Your task to perform on an android device: clear all cookies in the chrome app Image 0: 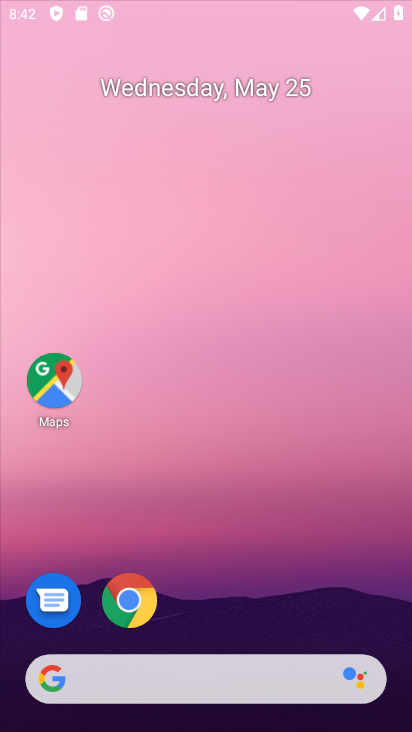
Step 0: drag from (245, 567) to (244, 60)
Your task to perform on an android device: clear all cookies in the chrome app Image 1: 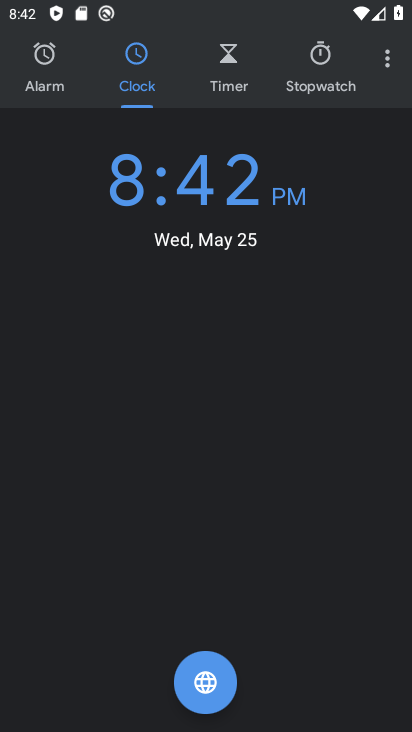
Step 1: press back button
Your task to perform on an android device: clear all cookies in the chrome app Image 2: 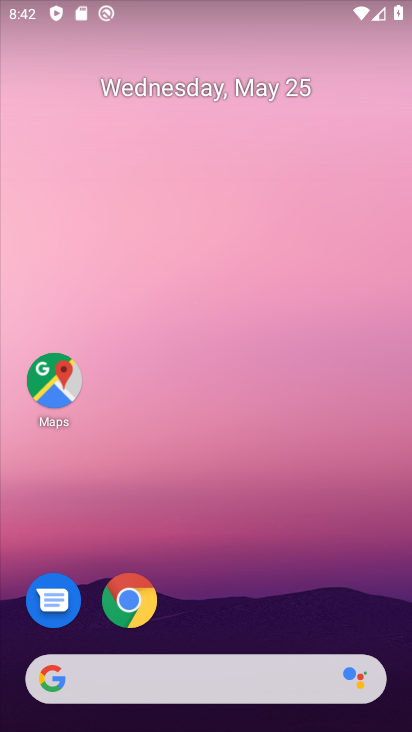
Step 2: drag from (290, 503) to (238, 27)
Your task to perform on an android device: clear all cookies in the chrome app Image 3: 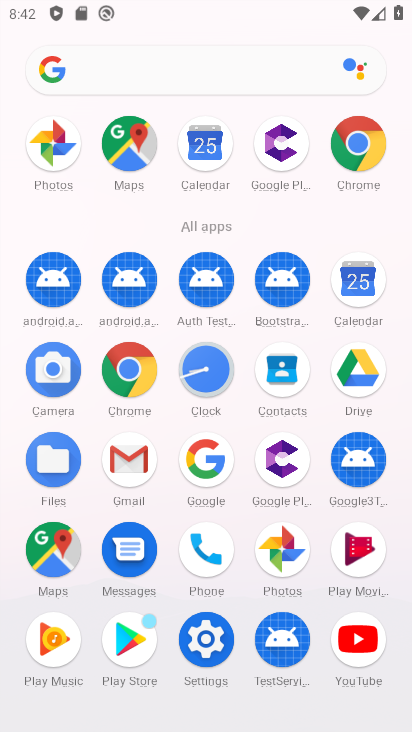
Step 3: click (354, 140)
Your task to perform on an android device: clear all cookies in the chrome app Image 4: 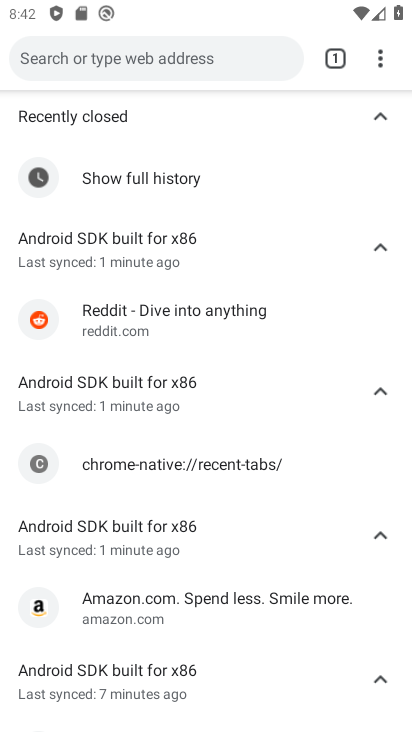
Step 4: drag from (380, 60) to (181, 558)
Your task to perform on an android device: clear all cookies in the chrome app Image 5: 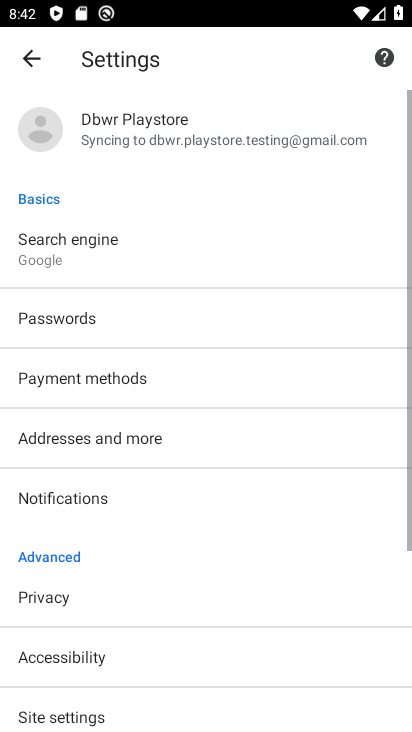
Step 5: click (70, 609)
Your task to perform on an android device: clear all cookies in the chrome app Image 6: 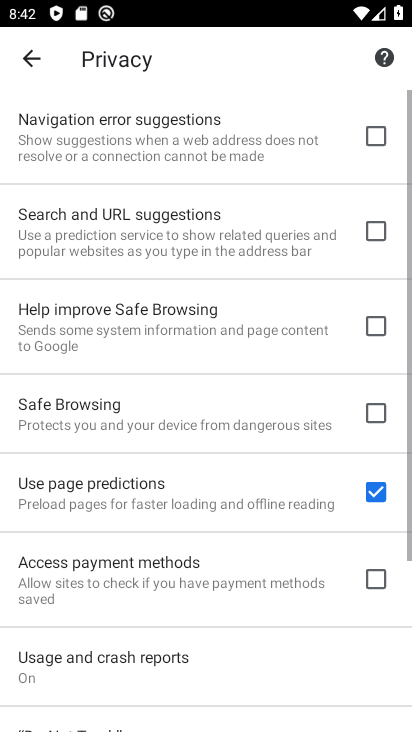
Step 6: drag from (224, 591) to (205, 119)
Your task to perform on an android device: clear all cookies in the chrome app Image 7: 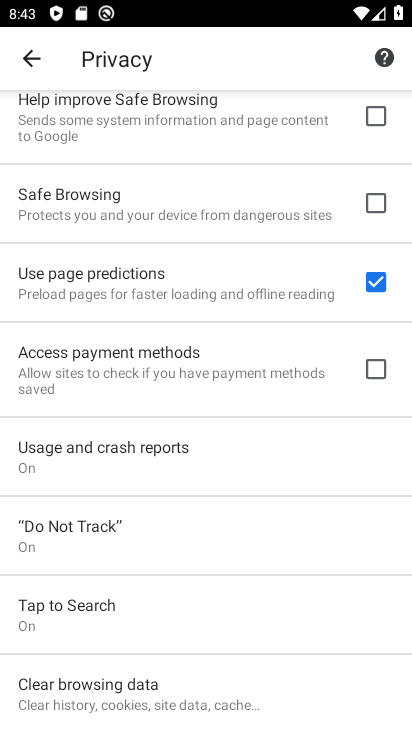
Step 7: click (134, 693)
Your task to perform on an android device: clear all cookies in the chrome app Image 8: 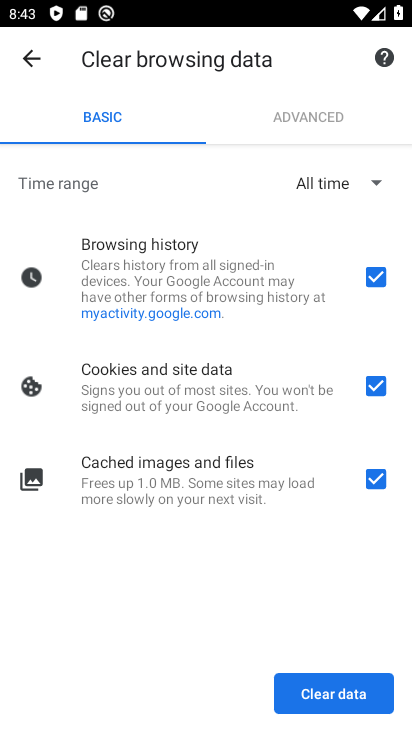
Step 8: click (369, 271)
Your task to perform on an android device: clear all cookies in the chrome app Image 9: 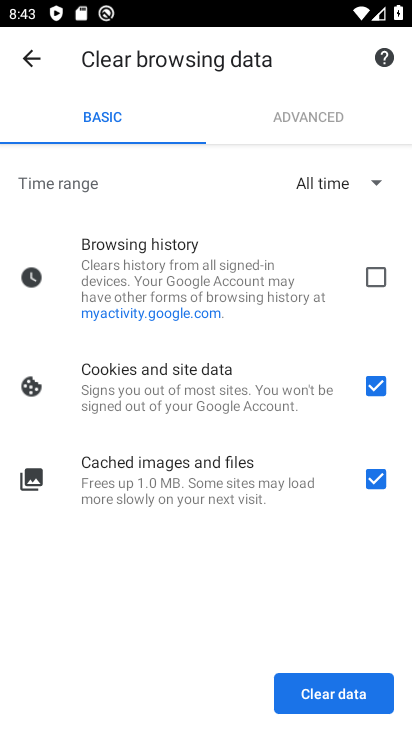
Step 9: click (373, 478)
Your task to perform on an android device: clear all cookies in the chrome app Image 10: 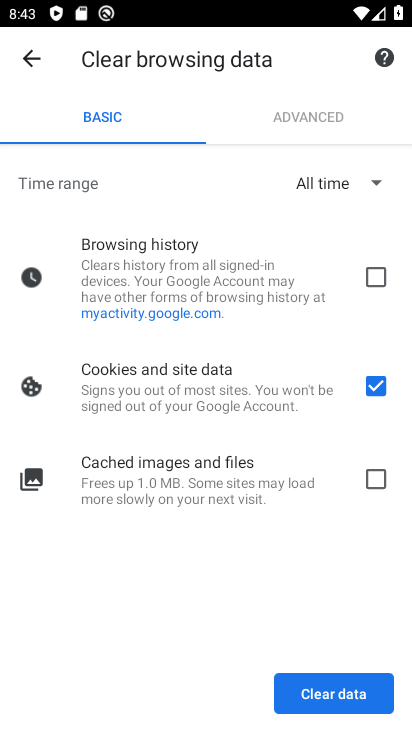
Step 10: click (316, 696)
Your task to perform on an android device: clear all cookies in the chrome app Image 11: 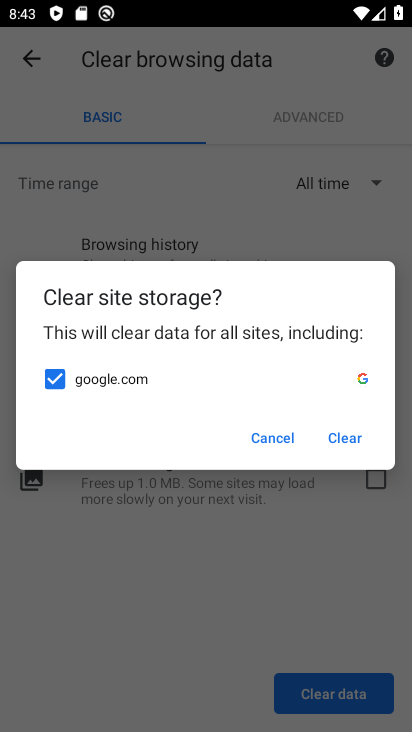
Step 11: click (334, 432)
Your task to perform on an android device: clear all cookies in the chrome app Image 12: 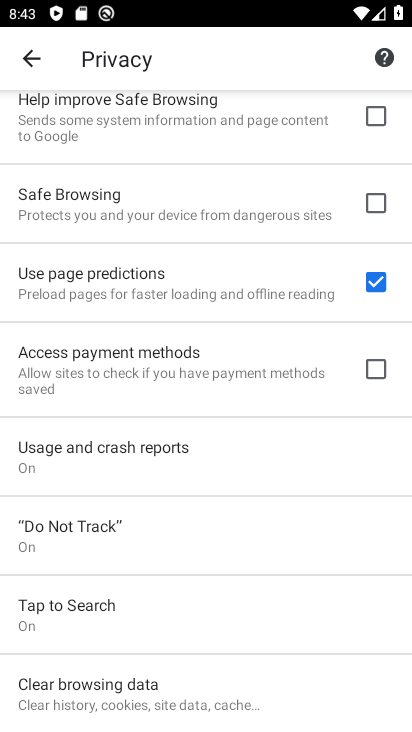
Step 12: task complete